Your task to perform on an android device: turn off data saver in the chrome app Image 0: 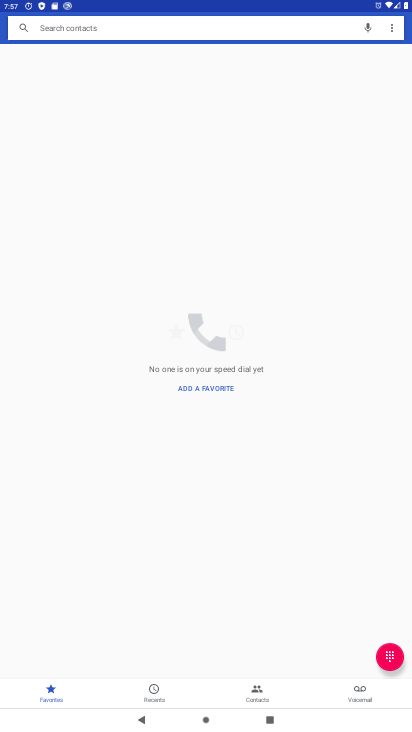
Step 0: press home button
Your task to perform on an android device: turn off data saver in the chrome app Image 1: 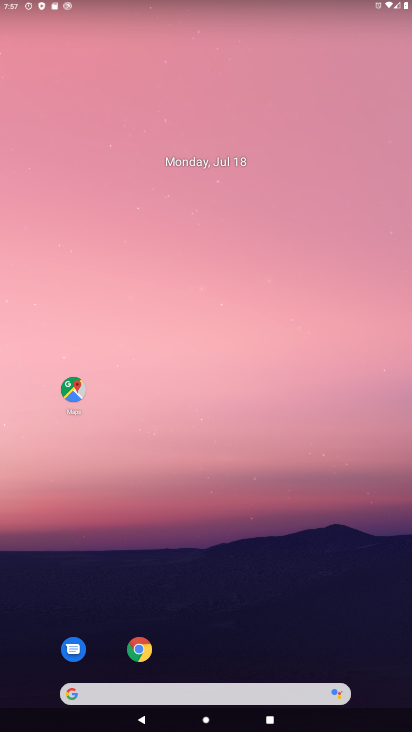
Step 1: drag from (338, 659) to (182, 164)
Your task to perform on an android device: turn off data saver in the chrome app Image 2: 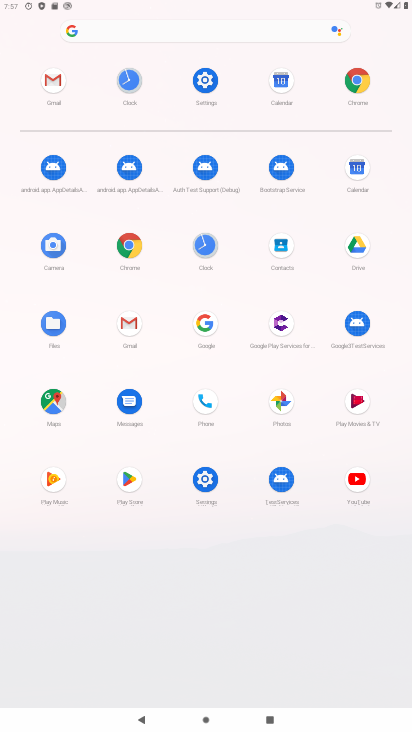
Step 2: click (129, 248)
Your task to perform on an android device: turn off data saver in the chrome app Image 3: 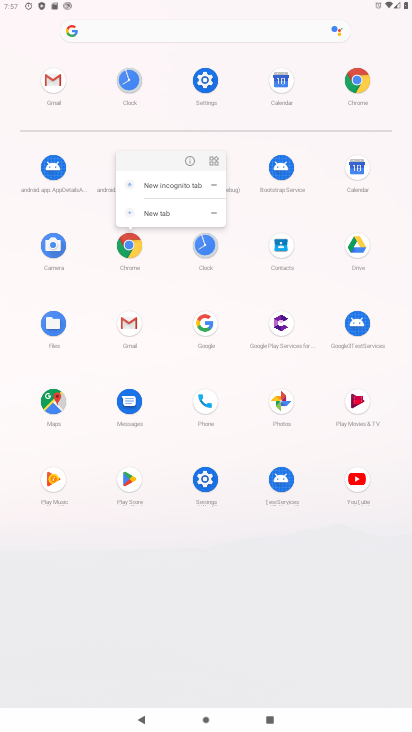
Step 3: click (129, 248)
Your task to perform on an android device: turn off data saver in the chrome app Image 4: 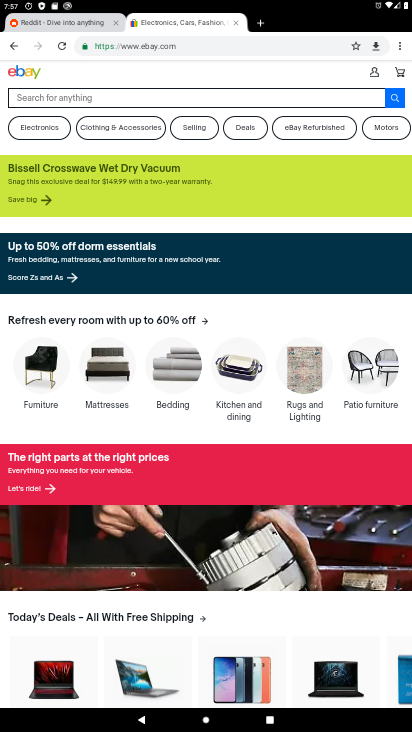
Step 4: drag from (402, 42) to (295, 338)
Your task to perform on an android device: turn off data saver in the chrome app Image 5: 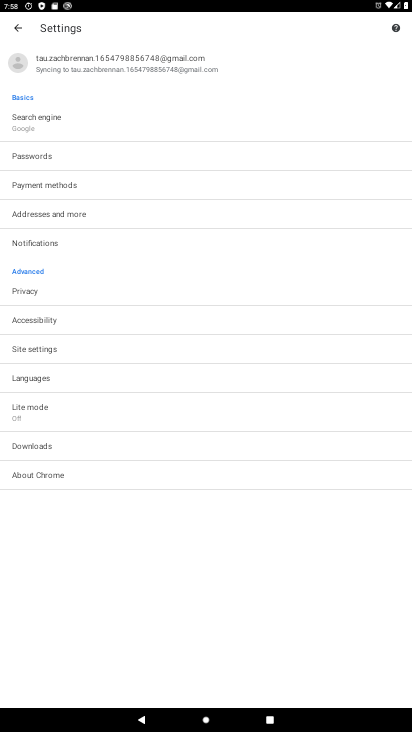
Step 5: click (61, 410)
Your task to perform on an android device: turn off data saver in the chrome app Image 6: 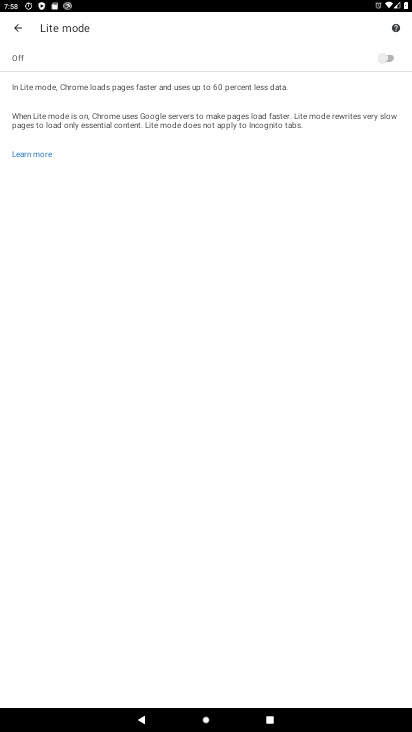
Step 6: task complete